Your task to perform on an android device: turn off priority inbox in the gmail app Image 0: 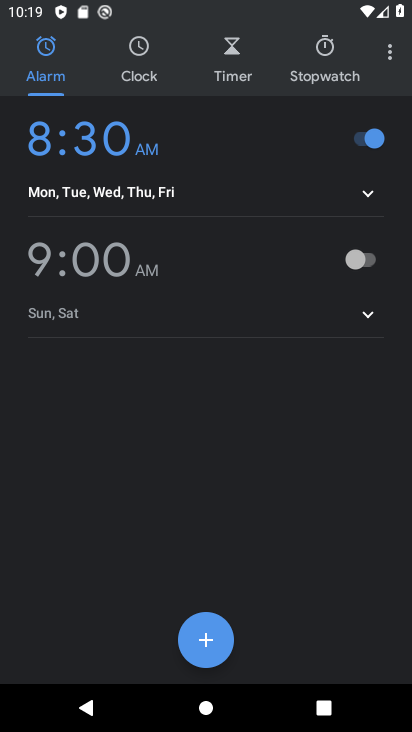
Step 0: press back button
Your task to perform on an android device: turn off priority inbox in the gmail app Image 1: 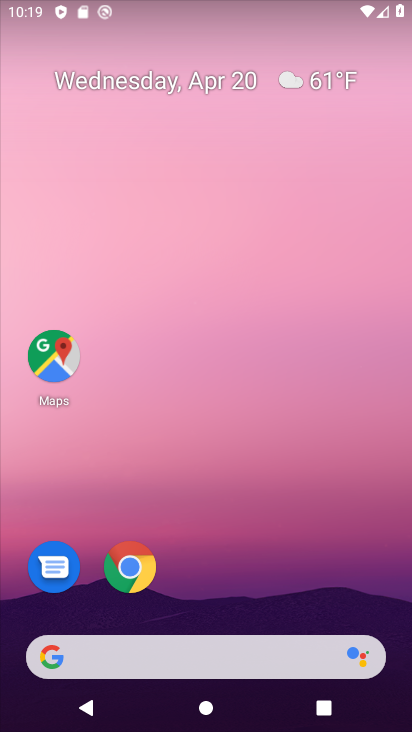
Step 1: drag from (249, 506) to (317, 24)
Your task to perform on an android device: turn off priority inbox in the gmail app Image 2: 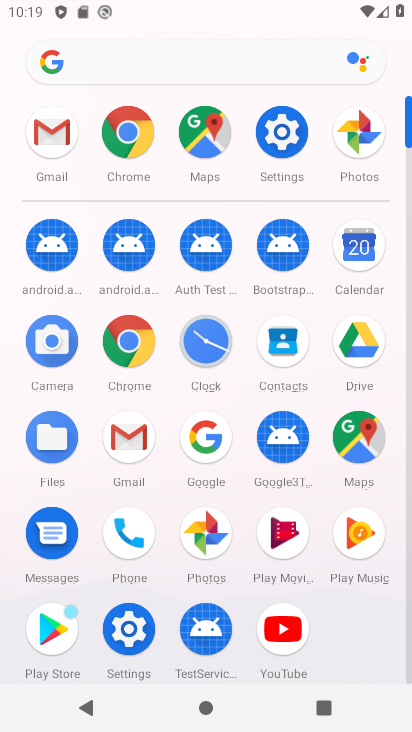
Step 2: click (43, 133)
Your task to perform on an android device: turn off priority inbox in the gmail app Image 3: 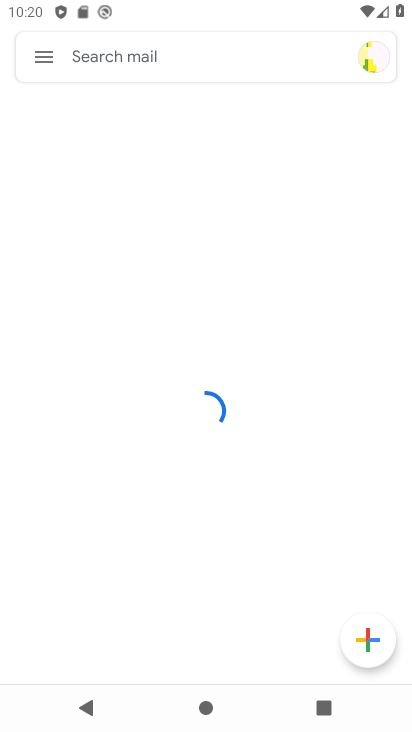
Step 3: click (44, 53)
Your task to perform on an android device: turn off priority inbox in the gmail app Image 4: 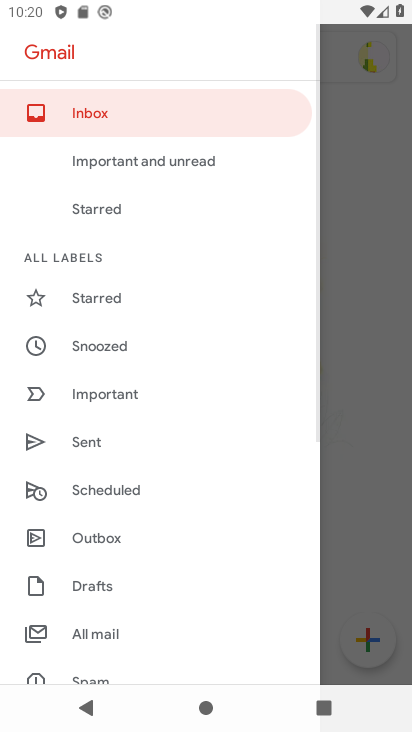
Step 4: drag from (136, 646) to (206, 249)
Your task to perform on an android device: turn off priority inbox in the gmail app Image 5: 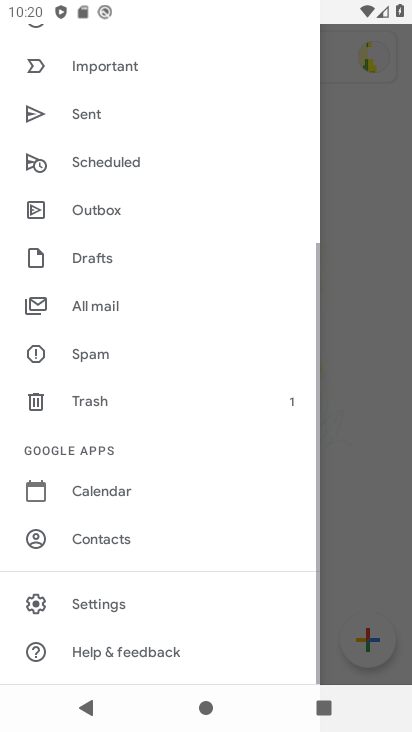
Step 5: click (136, 604)
Your task to perform on an android device: turn off priority inbox in the gmail app Image 6: 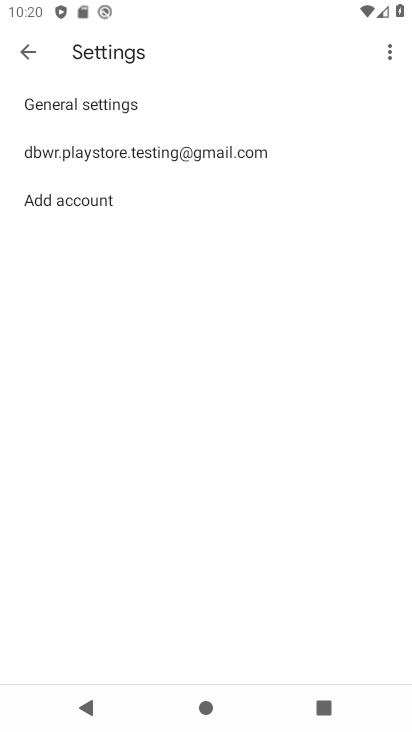
Step 6: click (150, 156)
Your task to perform on an android device: turn off priority inbox in the gmail app Image 7: 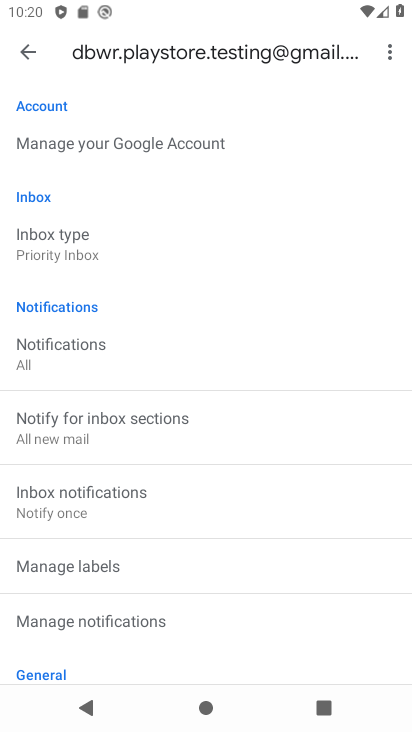
Step 7: click (69, 246)
Your task to perform on an android device: turn off priority inbox in the gmail app Image 8: 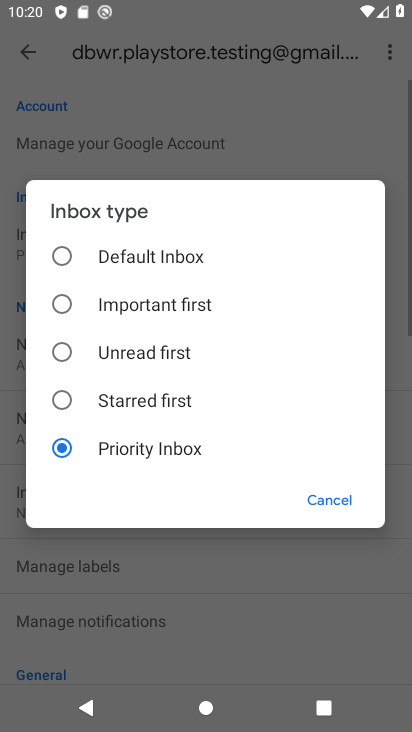
Step 8: click (63, 247)
Your task to perform on an android device: turn off priority inbox in the gmail app Image 9: 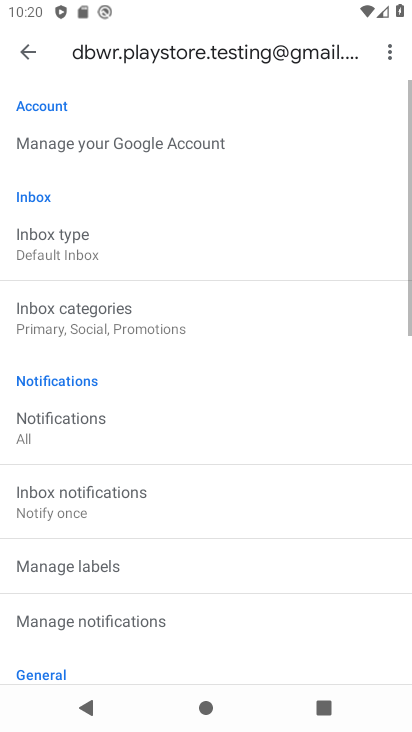
Step 9: task complete